Your task to perform on an android device: delete a single message in the gmail app Image 0: 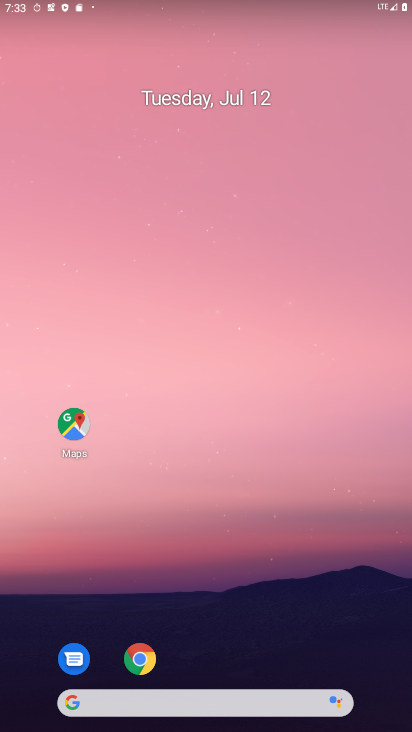
Step 0: drag from (394, 655) to (278, 37)
Your task to perform on an android device: delete a single message in the gmail app Image 1: 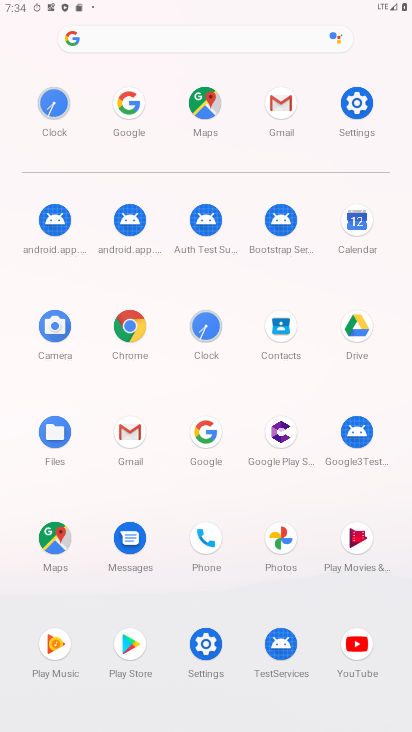
Step 1: click (135, 436)
Your task to perform on an android device: delete a single message in the gmail app Image 2: 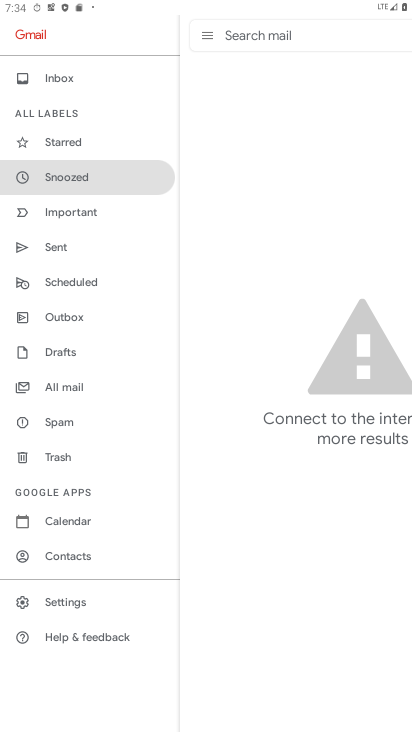
Step 2: task complete